Your task to perform on an android device: What's the weather going to be tomorrow? Image 0: 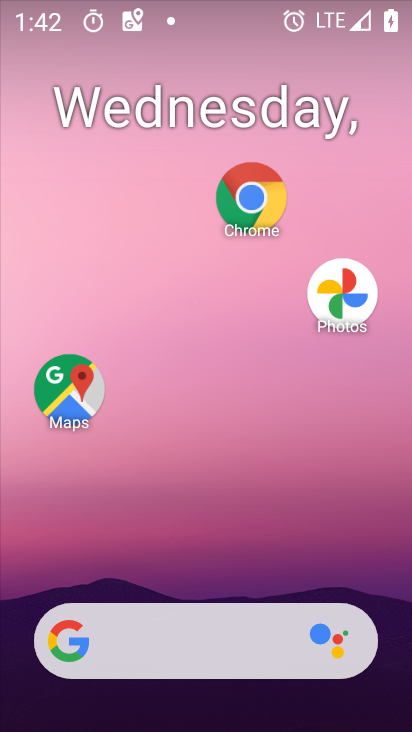
Step 0: drag from (236, 595) to (290, 141)
Your task to perform on an android device: What's the weather going to be tomorrow? Image 1: 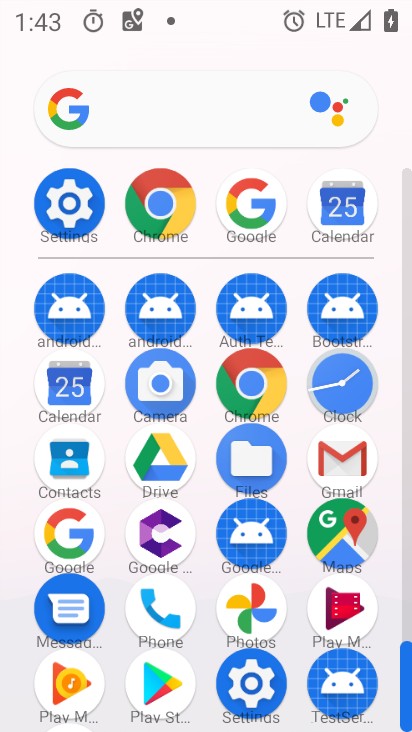
Step 1: click (91, 539)
Your task to perform on an android device: What's the weather going to be tomorrow? Image 2: 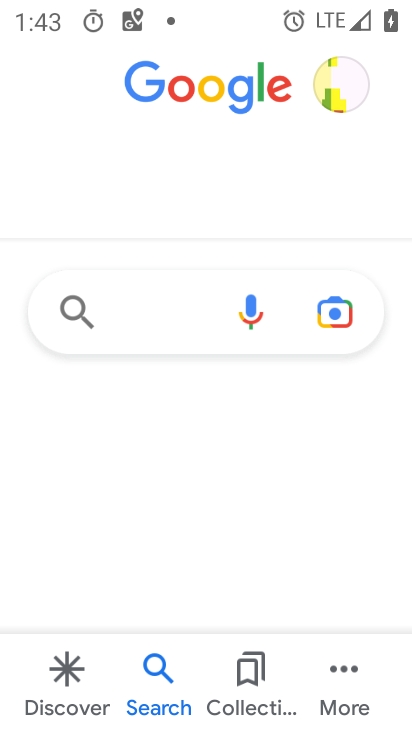
Step 2: click (156, 303)
Your task to perform on an android device: What's the weather going to be tomorrow? Image 3: 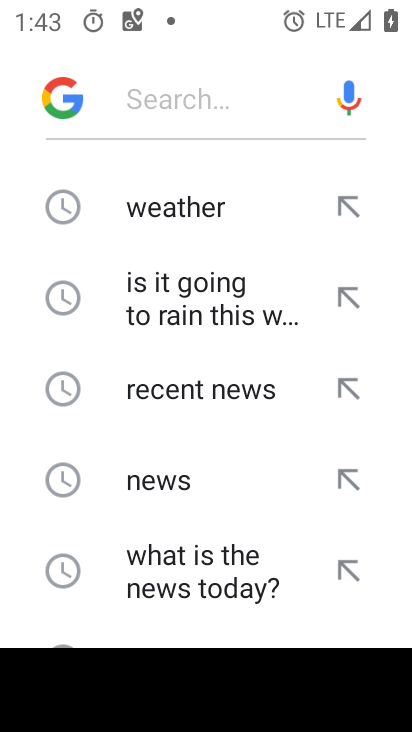
Step 3: click (183, 207)
Your task to perform on an android device: What's the weather going to be tomorrow? Image 4: 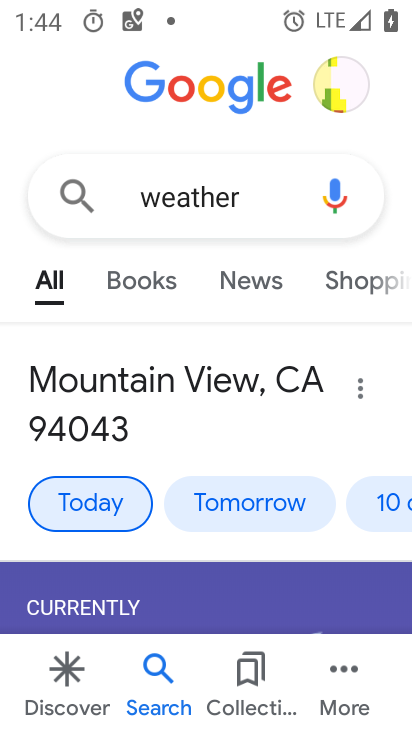
Step 4: click (239, 503)
Your task to perform on an android device: What's the weather going to be tomorrow? Image 5: 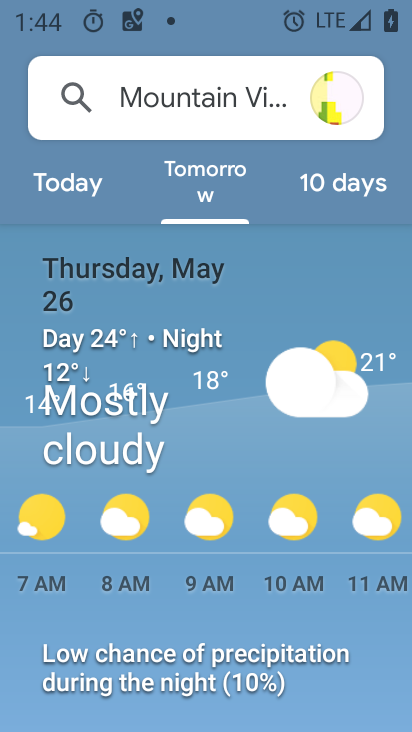
Step 5: task complete